Your task to perform on an android device: choose inbox layout in the gmail app Image 0: 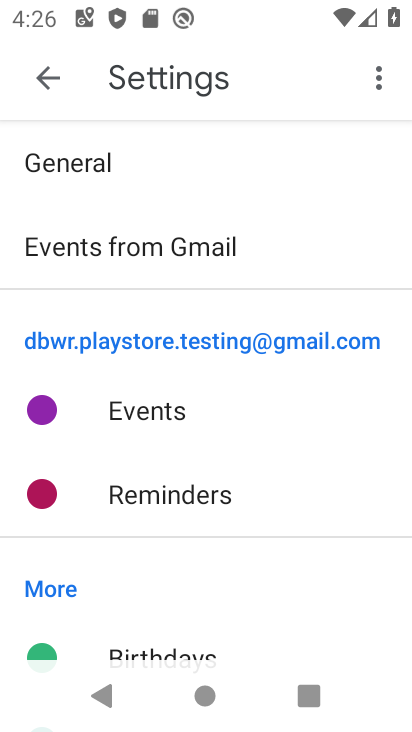
Step 0: press home button
Your task to perform on an android device: choose inbox layout in the gmail app Image 1: 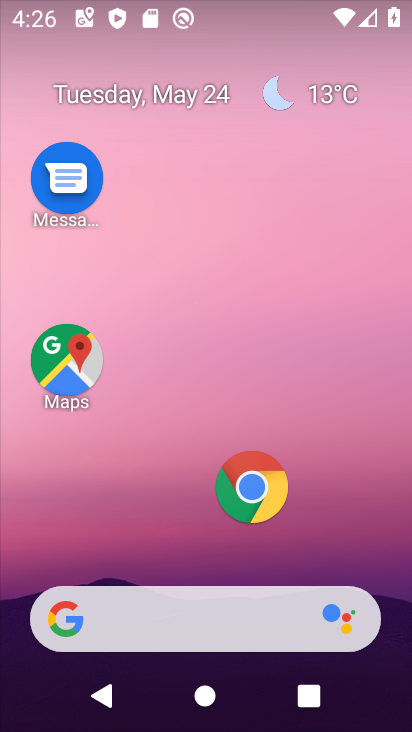
Step 1: drag from (176, 471) to (1, 0)
Your task to perform on an android device: choose inbox layout in the gmail app Image 2: 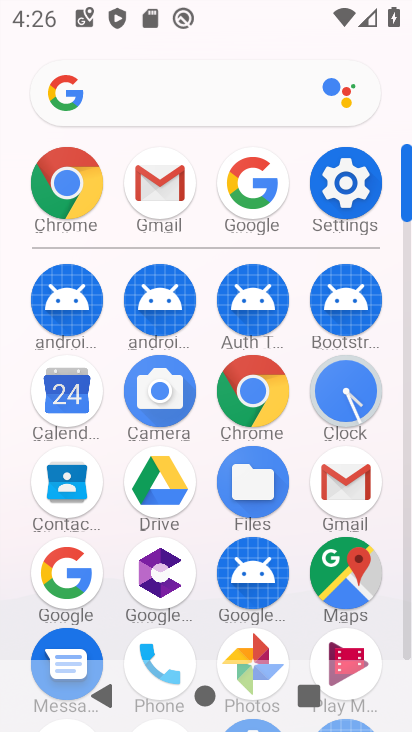
Step 2: click (178, 236)
Your task to perform on an android device: choose inbox layout in the gmail app Image 3: 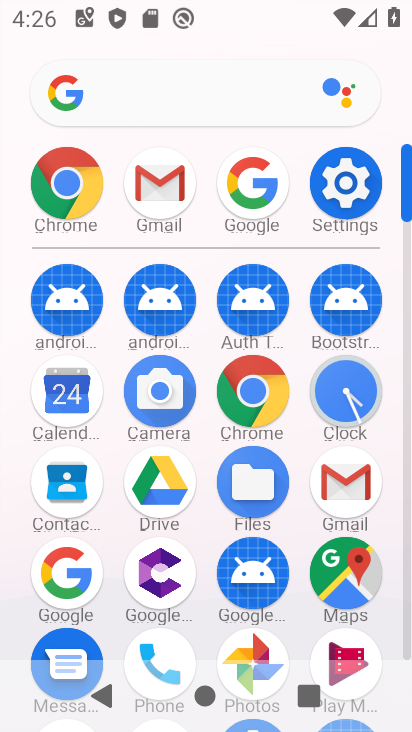
Step 3: click (163, 218)
Your task to perform on an android device: choose inbox layout in the gmail app Image 4: 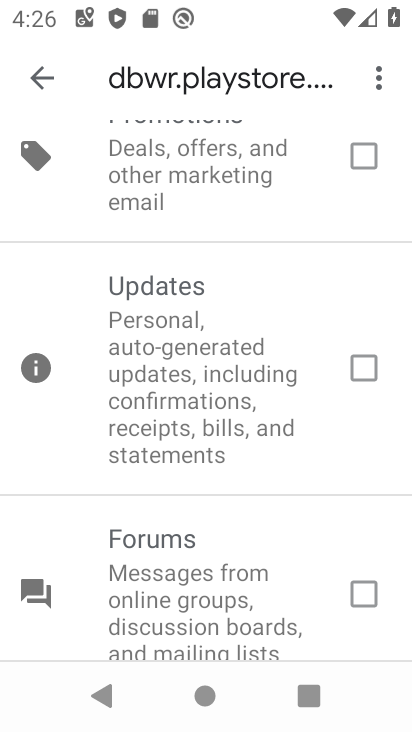
Step 4: click (35, 87)
Your task to perform on an android device: choose inbox layout in the gmail app Image 5: 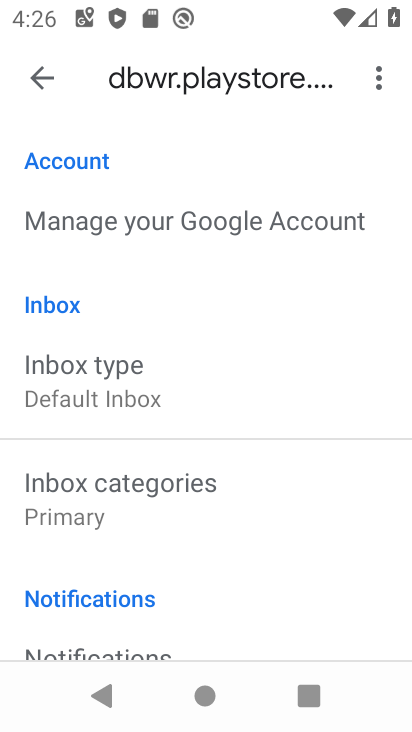
Step 5: click (123, 419)
Your task to perform on an android device: choose inbox layout in the gmail app Image 6: 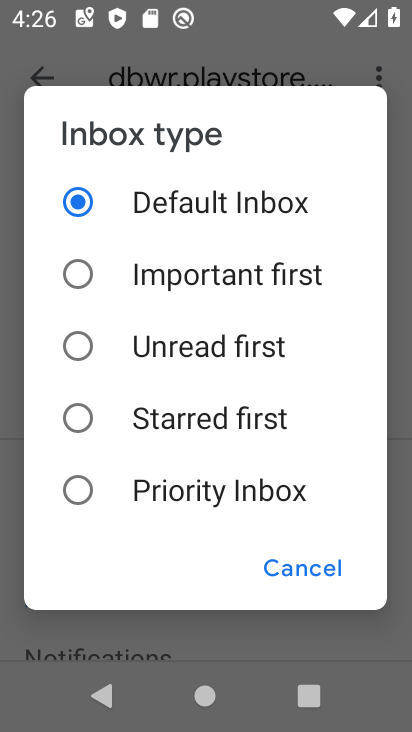
Step 6: click (81, 276)
Your task to perform on an android device: choose inbox layout in the gmail app Image 7: 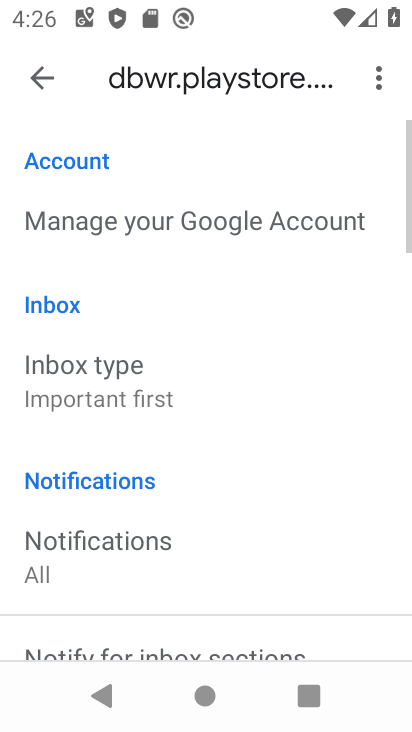
Step 7: task complete